Your task to perform on an android device: turn off notifications settings in the gmail app Image 0: 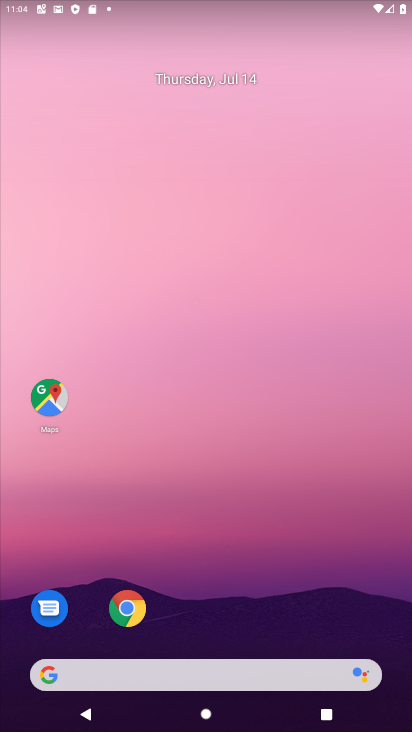
Step 0: drag from (270, 610) to (208, 0)
Your task to perform on an android device: turn off notifications settings in the gmail app Image 1: 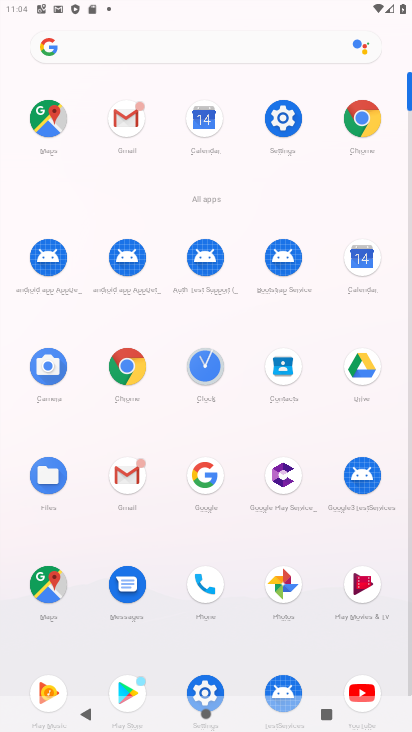
Step 1: click (131, 117)
Your task to perform on an android device: turn off notifications settings in the gmail app Image 2: 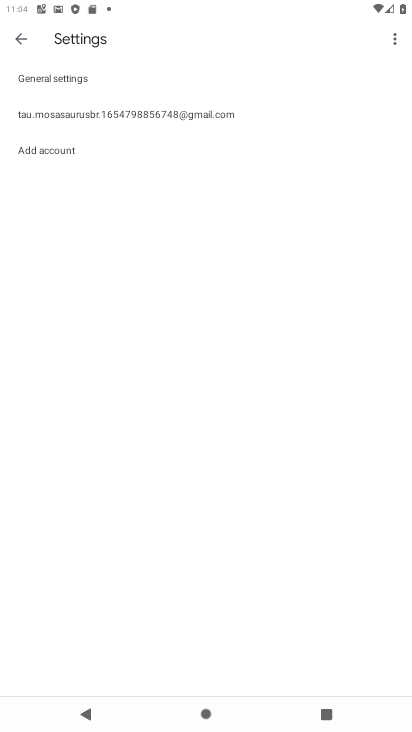
Step 2: click (114, 107)
Your task to perform on an android device: turn off notifications settings in the gmail app Image 3: 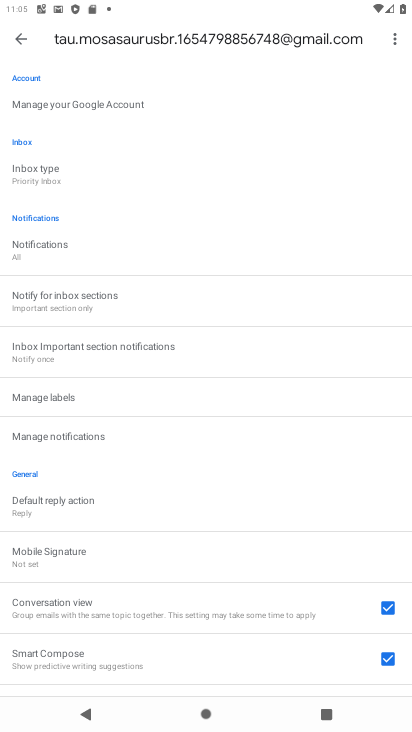
Step 3: click (64, 248)
Your task to perform on an android device: turn off notifications settings in the gmail app Image 4: 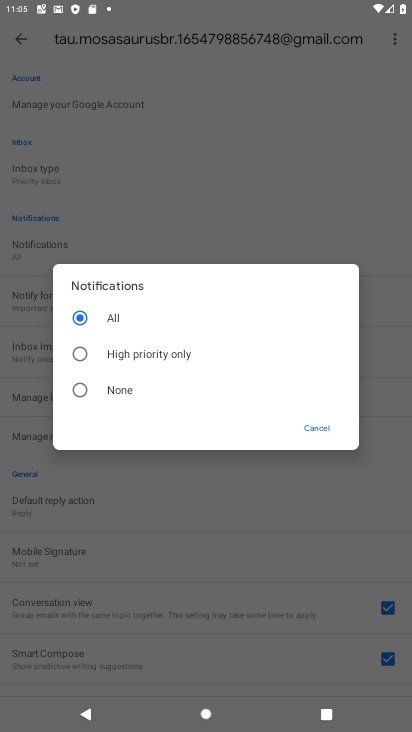
Step 4: click (121, 385)
Your task to perform on an android device: turn off notifications settings in the gmail app Image 5: 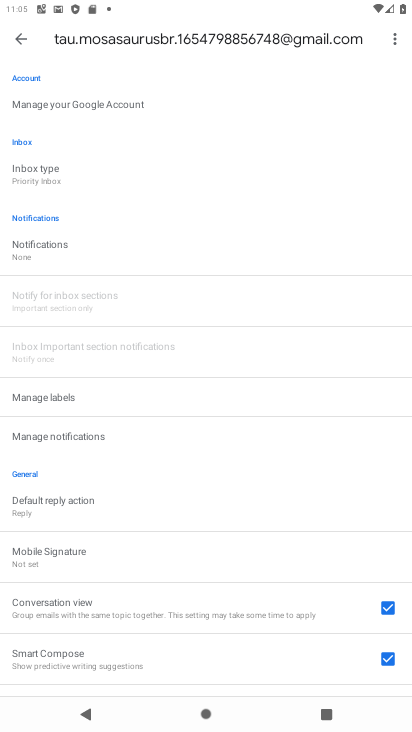
Step 5: task complete